Your task to perform on an android device: add a contact in the contacts app Image 0: 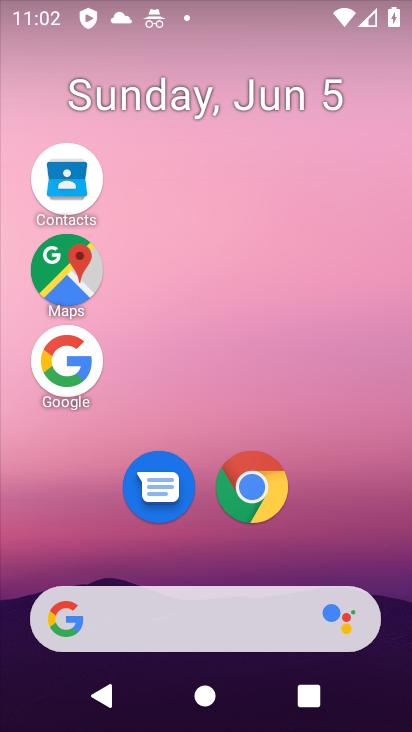
Step 0: drag from (228, 639) to (304, 65)
Your task to perform on an android device: add a contact in the contacts app Image 1: 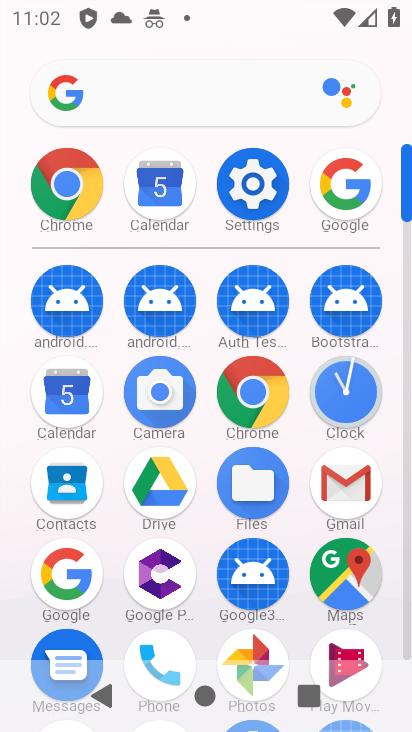
Step 1: click (56, 495)
Your task to perform on an android device: add a contact in the contacts app Image 2: 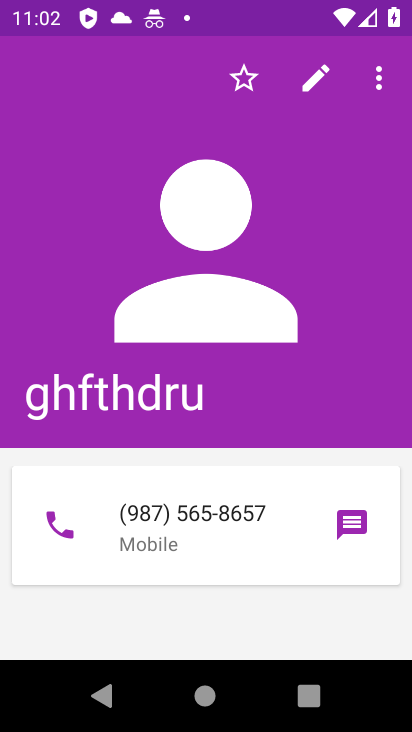
Step 2: press back button
Your task to perform on an android device: add a contact in the contacts app Image 3: 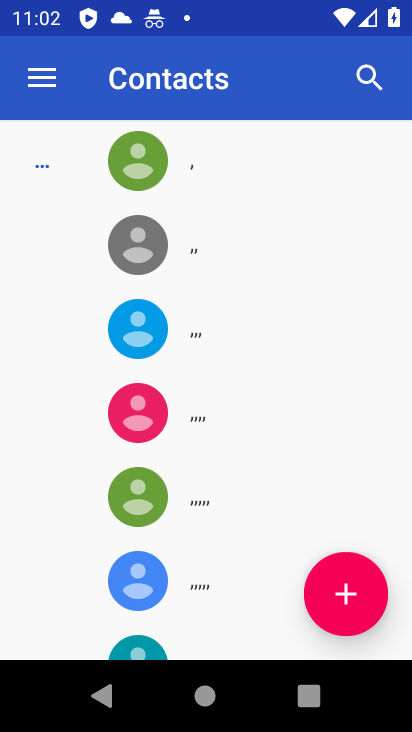
Step 3: press back button
Your task to perform on an android device: add a contact in the contacts app Image 4: 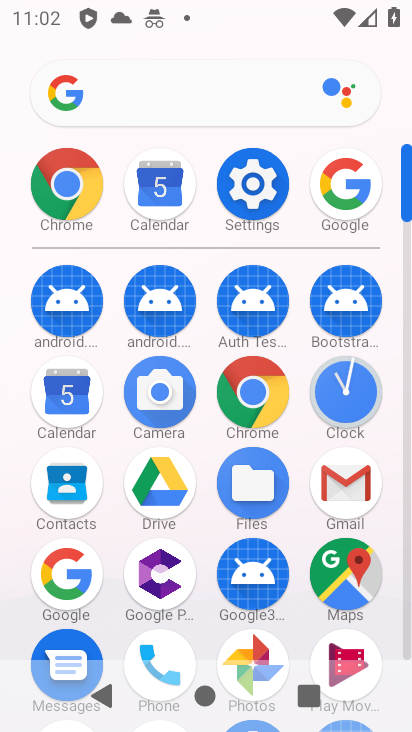
Step 4: click (77, 489)
Your task to perform on an android device: add a contact in the contacts app Image 5: 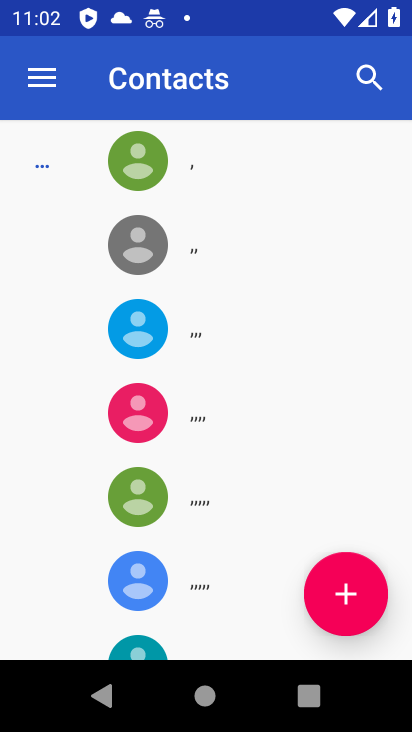
Step 5: click (340, 609)
Your task to perform on an android device: add a contact in the contacts app Image 6: 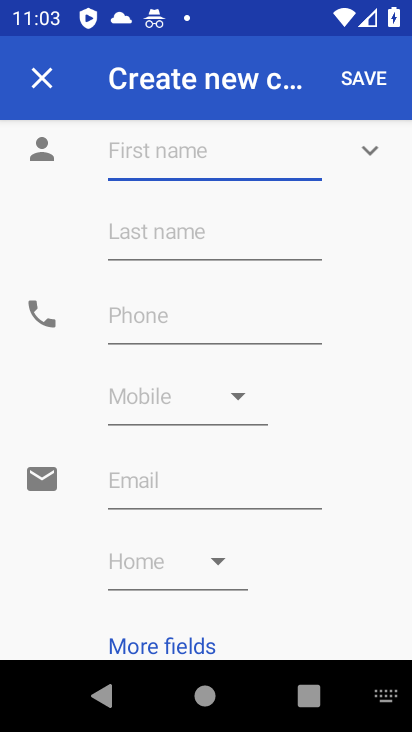
Step 6: type "dkjbsdhj"
Your task to perform on an android device: add a contact in the contacts app Image 7: 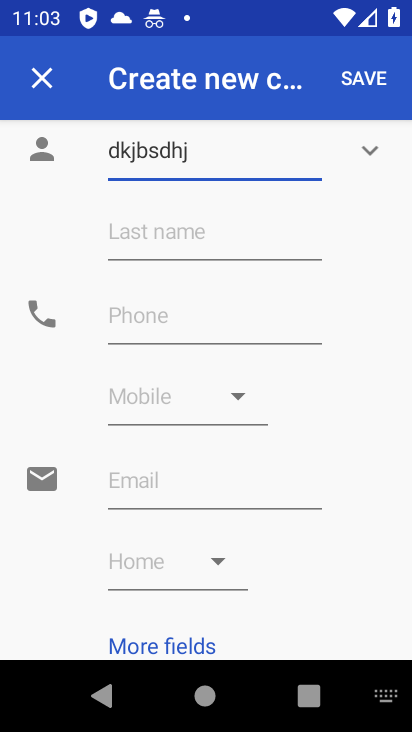
Step 7: click (263, 334)
Your task to perform on an android device: add a contact in the contacts app Image 8: 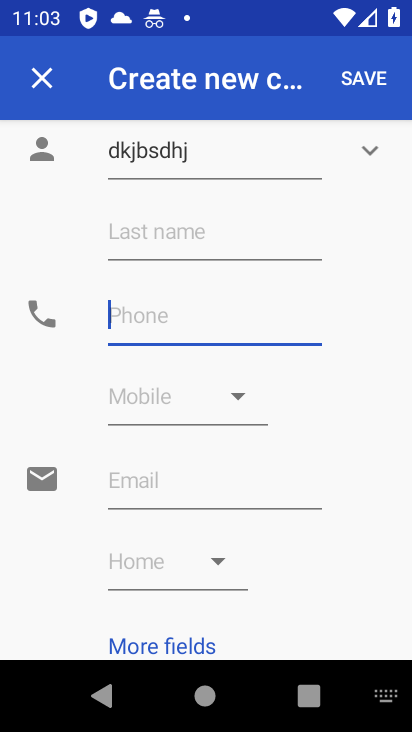
Step 8: type "983556908"
Your task to perform on an android device: add a contact in the contacts app Image 9: 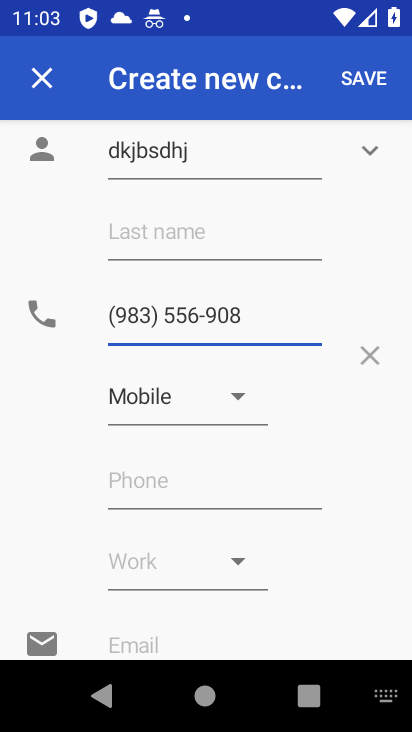
Step 9: click (368, 66)
Your task to perform on an android device: add a contact in the contacts app Image 10: 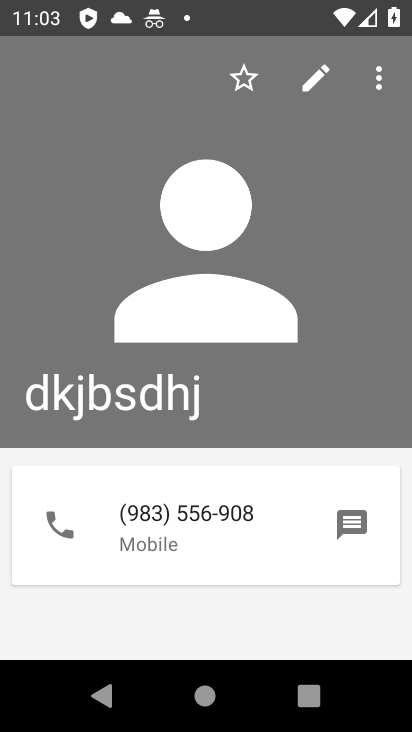
Step 10: task complete